Your task to perform on an android device: remove spam from my inbox in the gmail app Image 0: 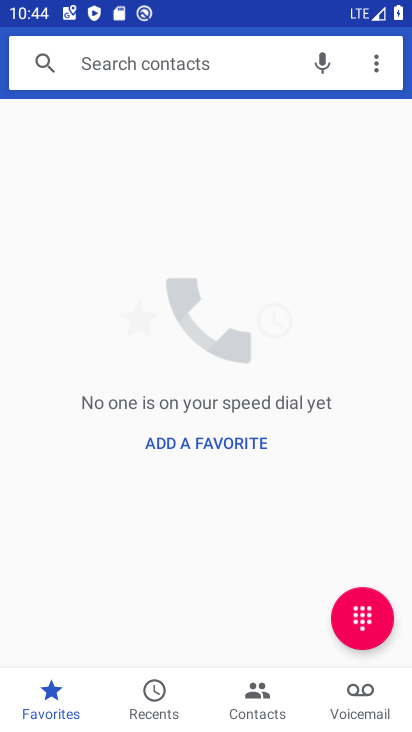
Step 0: press home button
Your task to perform on an android device: remove spam from my inbox in the gmail app Image 1: 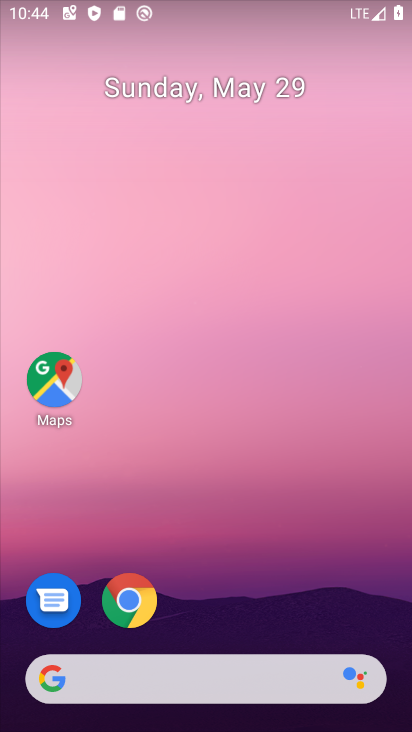
Step 1: drag from (199, 634) to (101, 165)
Your task to perform on an android device: remove spam from my inbox in the gmail app Image 2: 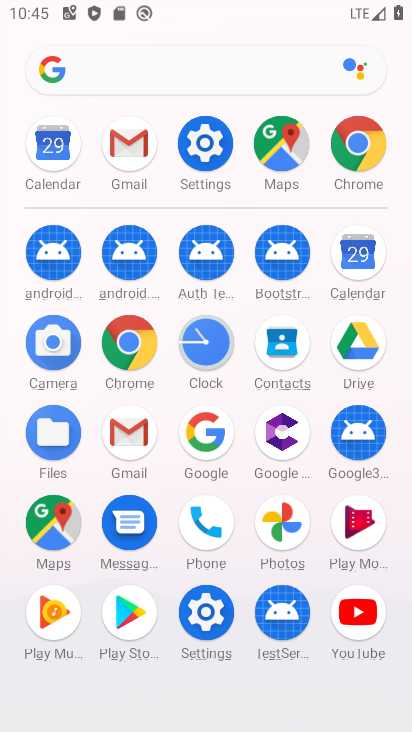
Step 2: click (147, 437)
Your task to perform on an android device: remove spam from my inbox in the gmail app Image 3: 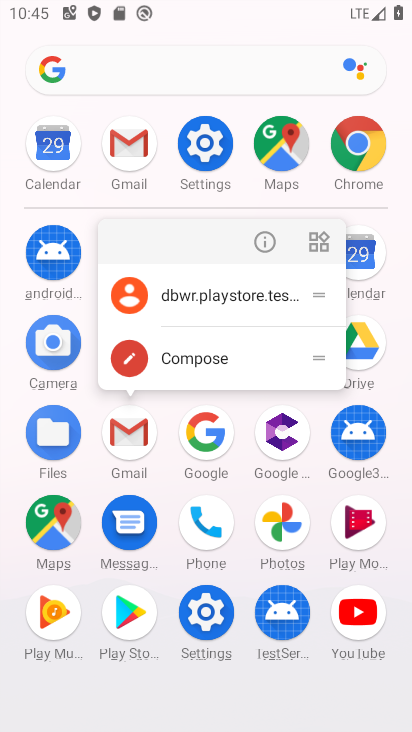
Step 3: click (120, 435)
Your task to perform on an android device: remove spam from my inbox in the gmail app Image 4: 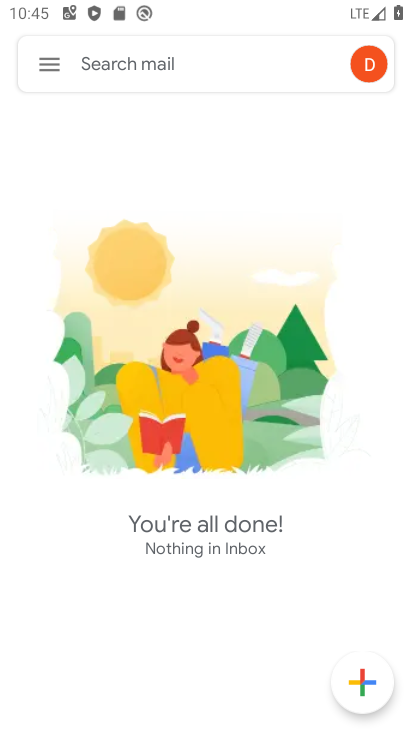
Step 4: click (46, 73)
Your task to perform on an android device: remove spam from my inbox in the gmail app Image 5: 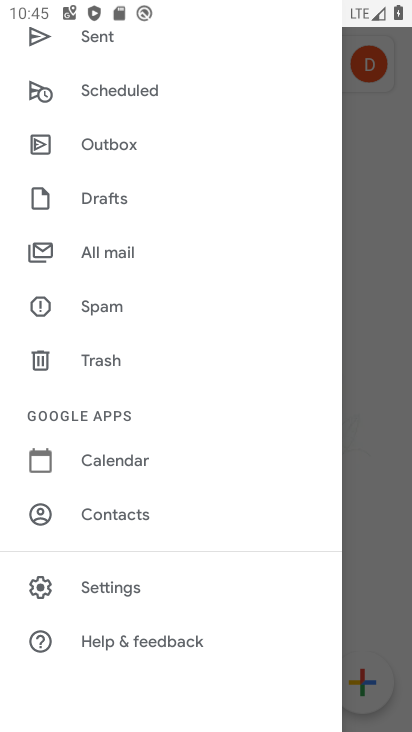
Step 5: task complete